Your task to perform on an android device: Go to CNN.com Image 0: 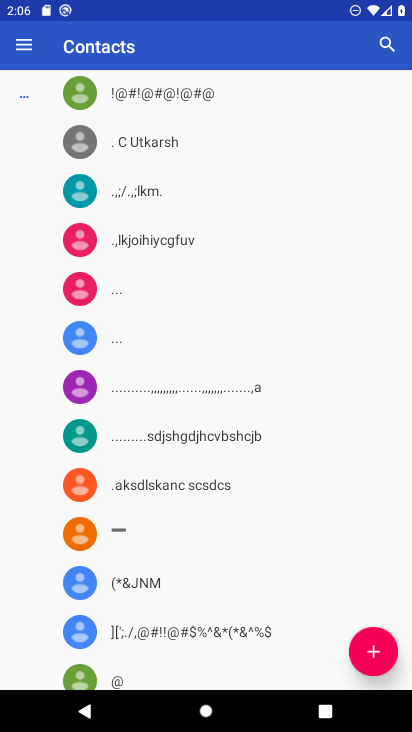
Step 0: press home button
Your task to perform on an android device: Go to CNN.com Image 1: 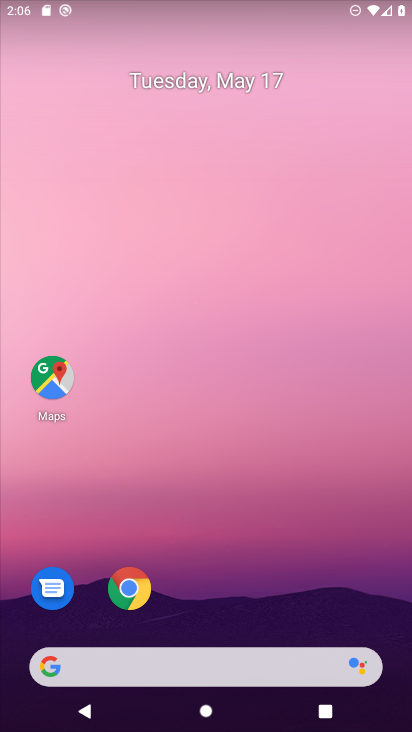
Step 1: click (124, 581)
Your task to perform on an android device: Go to CNN.com Image 2: 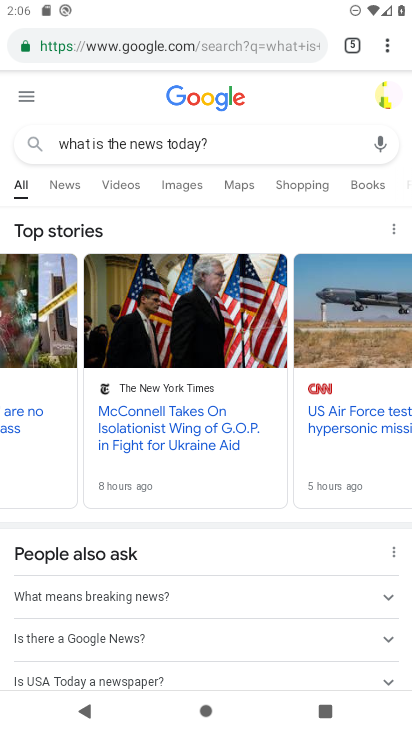
Step 2: click (351, 41)
Your task to perform on an android device: Go to CNN.com Image 3: 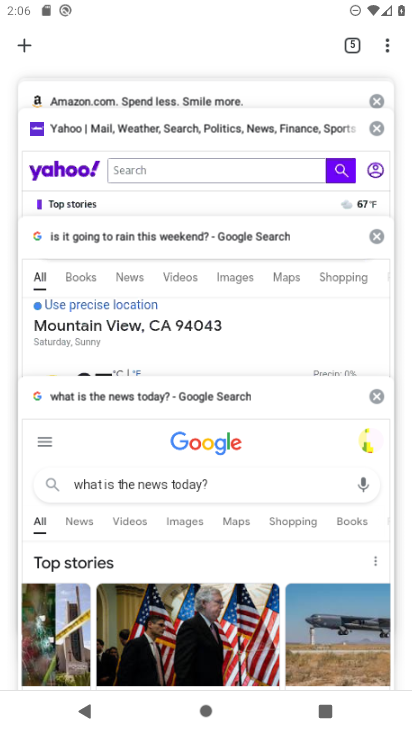
Step 3: click (29, 45)
Your task to perform on an android device: Go to CNN.com Image 4: 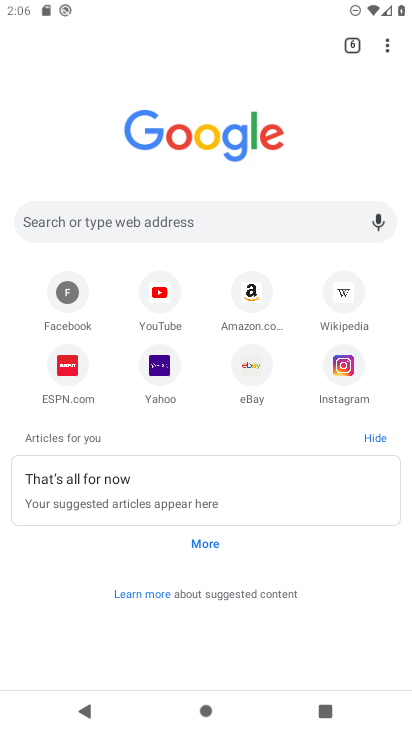
Step 4: click (197, 216)
Your task to perform on an android device: Go to CNN.com Image 5: 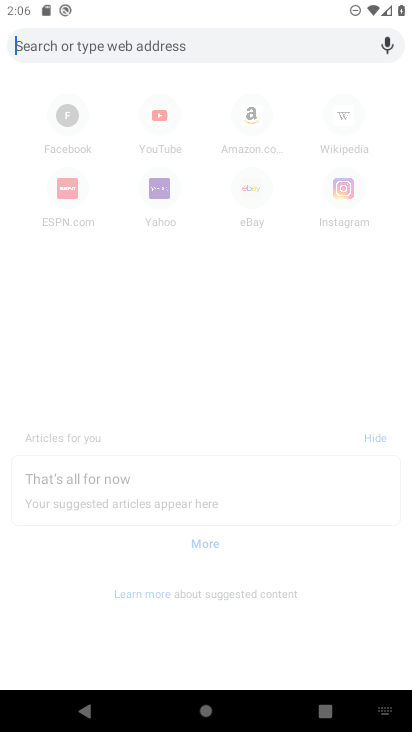
Step 5: type "cnn.com"
Your task to perform on an android device: Go to CNN.com Image 6: 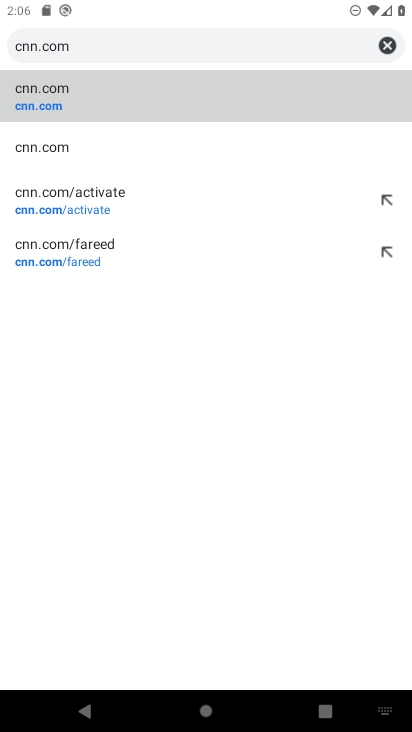
Step 6: click (63, 109)
Your task to perform on an android device: Go to CNN.com Image 7: 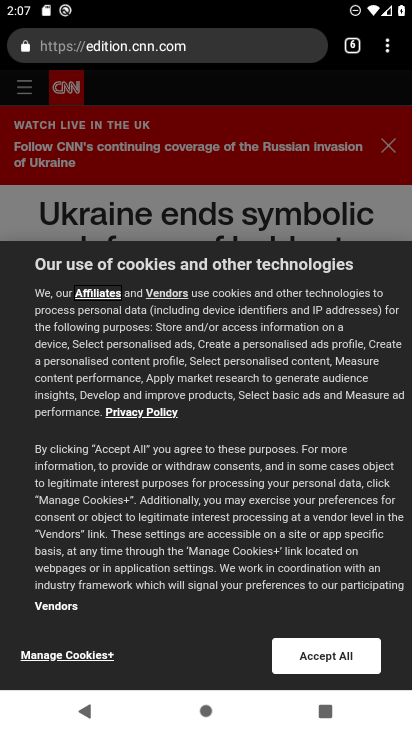
Step 7: click (298, 649)
Your task to perform on an android device: Go to CNN.com Image 8: 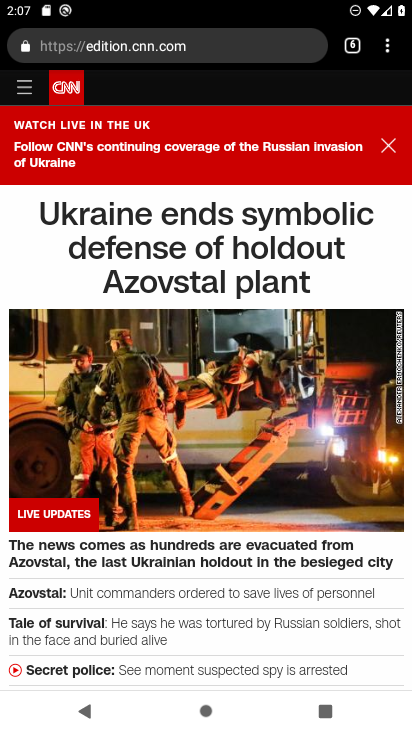
Step 8: task complete